Your task to perform on an android device: Show me productivity apps on the Play Store Image 0: 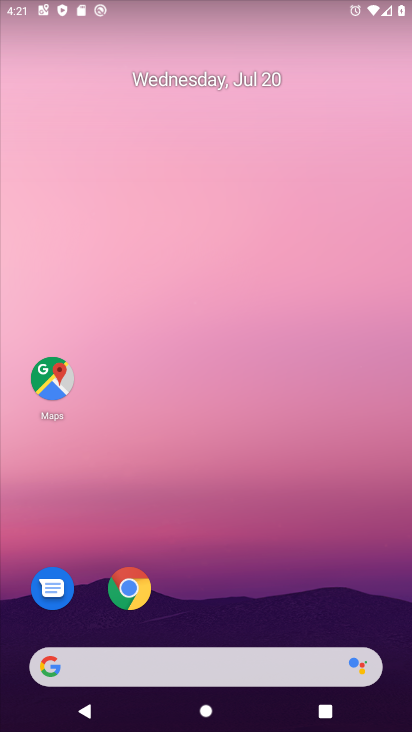
Step 0: drag from (231, 547) to (269, 98)
Your task to perform on an android device: Show me productivity apps on the Play Store Image 1: 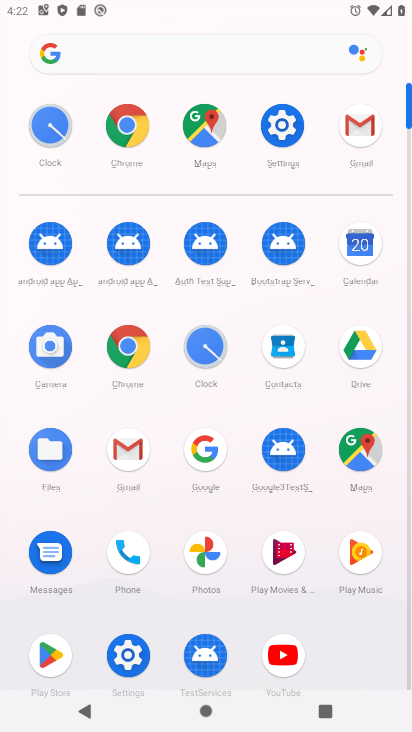
Step 1: click (30, 657)
Your task to perform on an android device: Show me productivity apps on the Play Store Image 2: 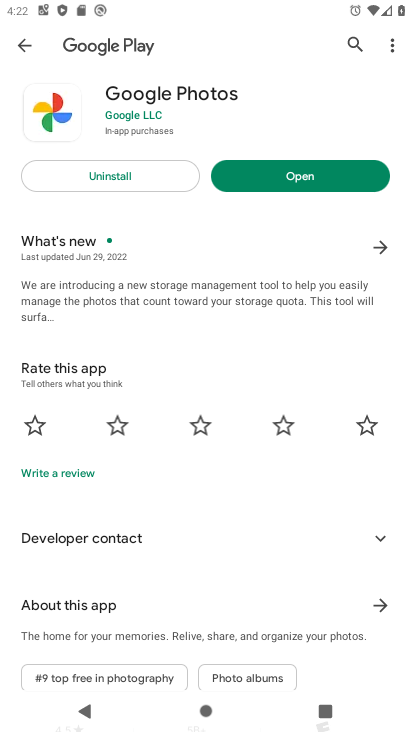
Step 2: click (26, 33)
Your task to perform on an android device: Show me productivity apps on the Play Store Image 3: 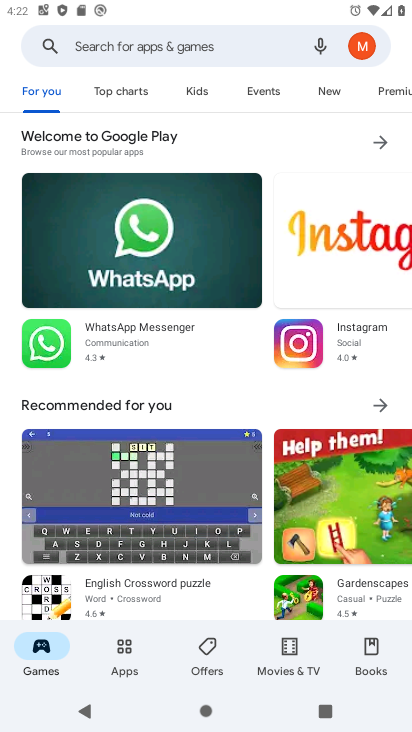
Step 3: click (129, 664)
Your task to perform on an android device: Show me productivity apps on the Play Store Image 4: 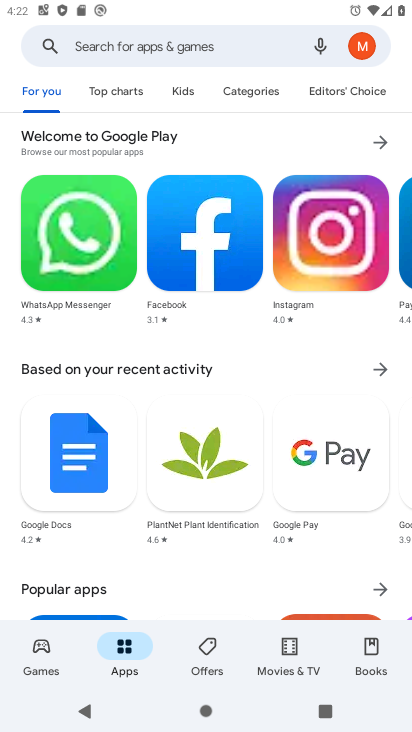
Step 4: task complete